Your task to perform on an android device: What's the weather? Image 0: 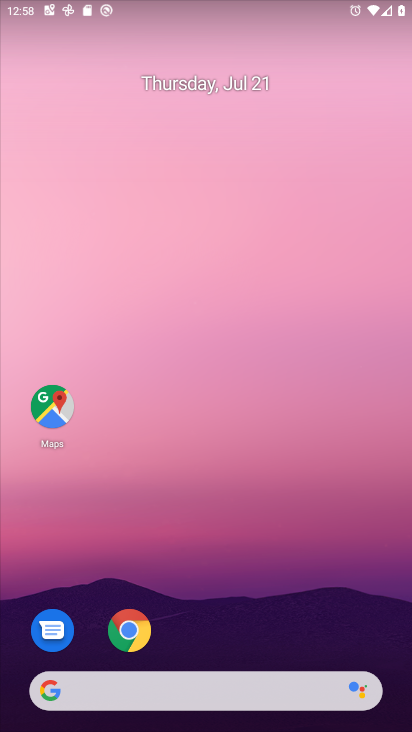
Step 0: click (239, 39)
Your task to perform on an android device: What's the weather? Image 1: 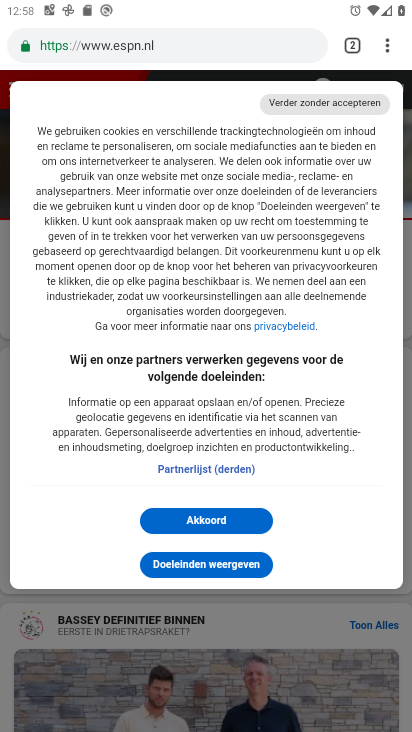
Step 1: press home button
Your task to perform on an android device: What's the weather? Image 2: 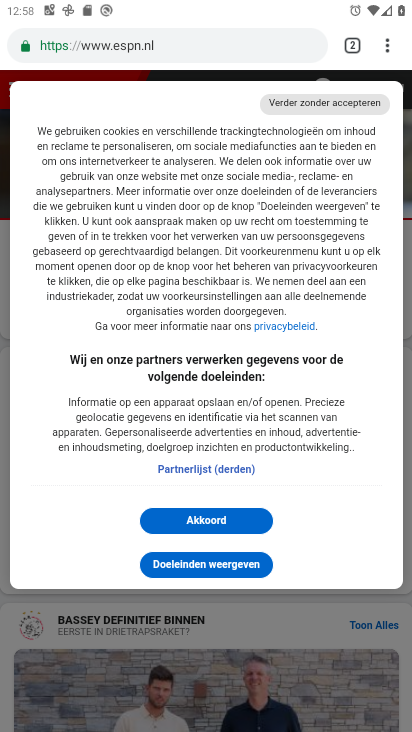
Step 2: drag from (198, 672) to (260, 3)
Your task to perform on an android device: What's the weather? Image 3: 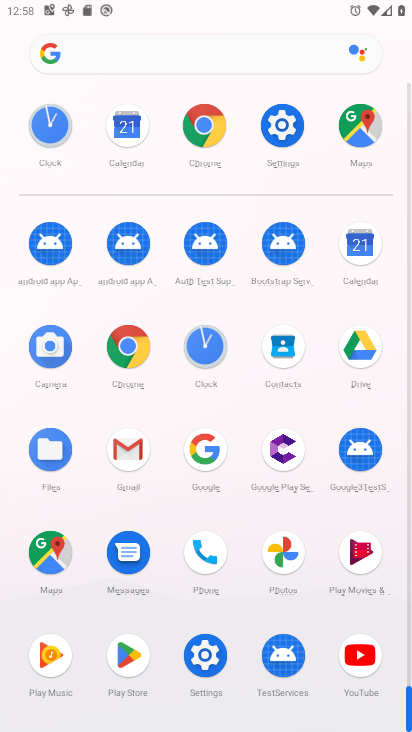
Step 3: click (124, 65)
Your task to perform on an android device: What's the weather? Image 4: 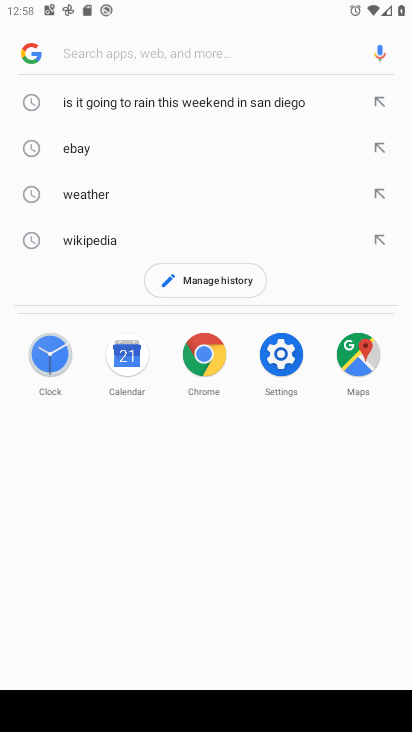
Step 4: click (97, 200)
Your task to perform on an android device: What's the weather? Image 5: 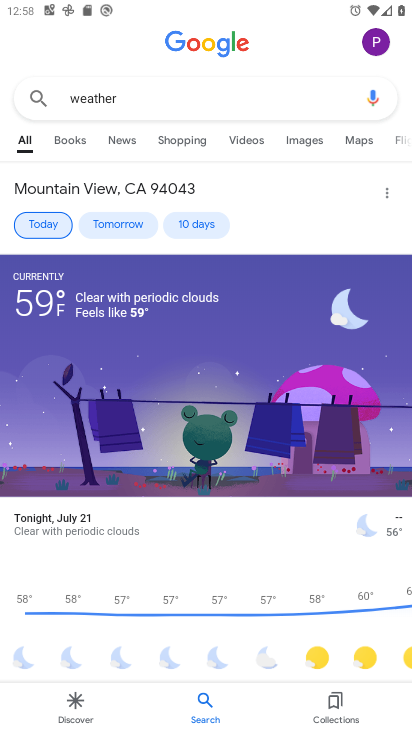
Step 5: task complete